Your task to perform on an android device: Go to Google maps Image 0: 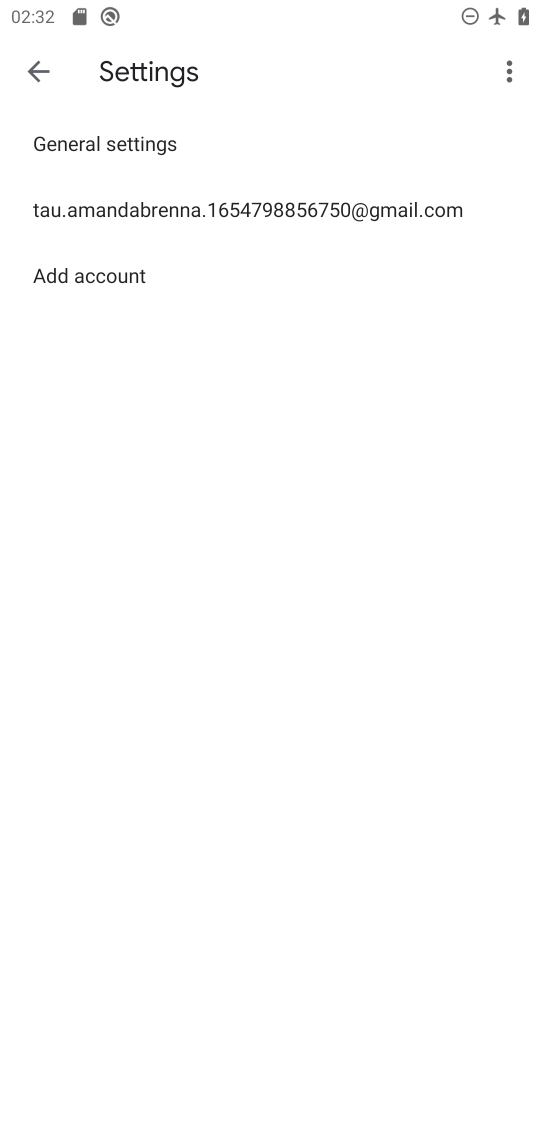
Step 0: press home button
Your task to perform on an android device: Go to Google maps Image 1: 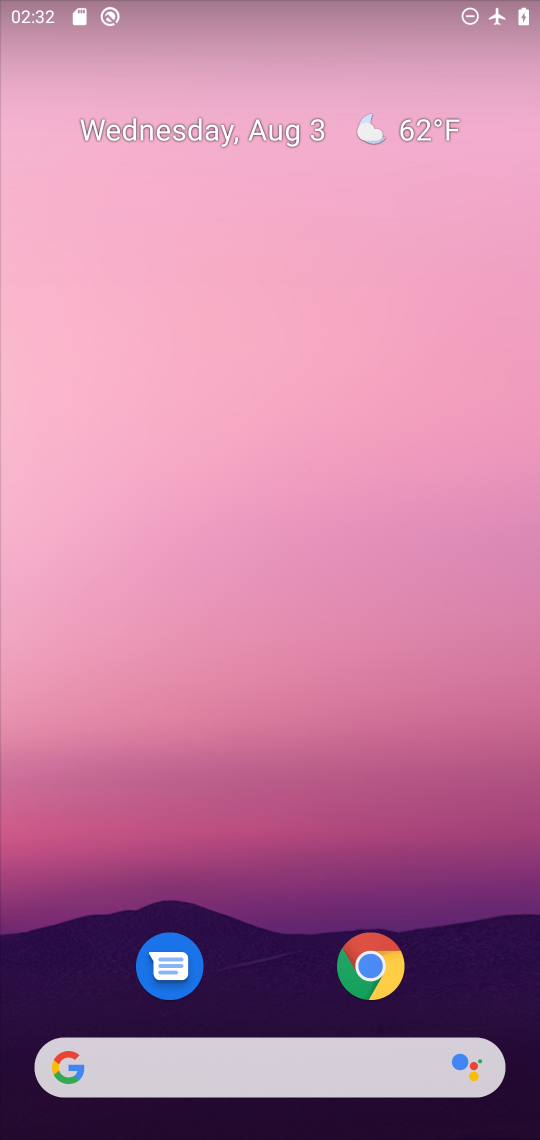
Step 1: drag from (263, 981) to (284, 330)
Your task to perform on an android device: Go to Google maps Image 2: 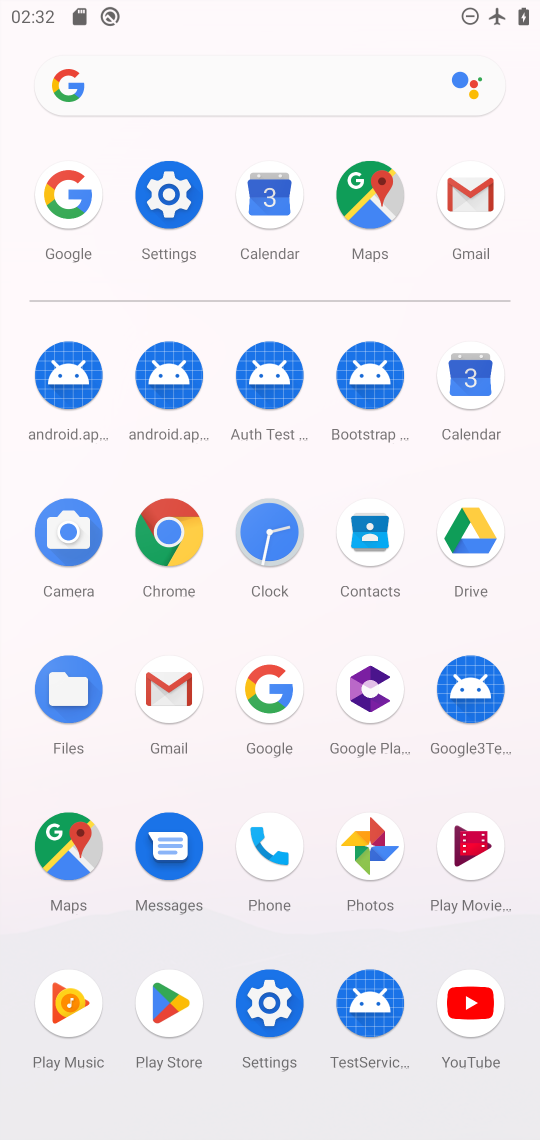
Step 2: click (390, 224)
Your task to perform on an android device: Go to Google maps Image 3: 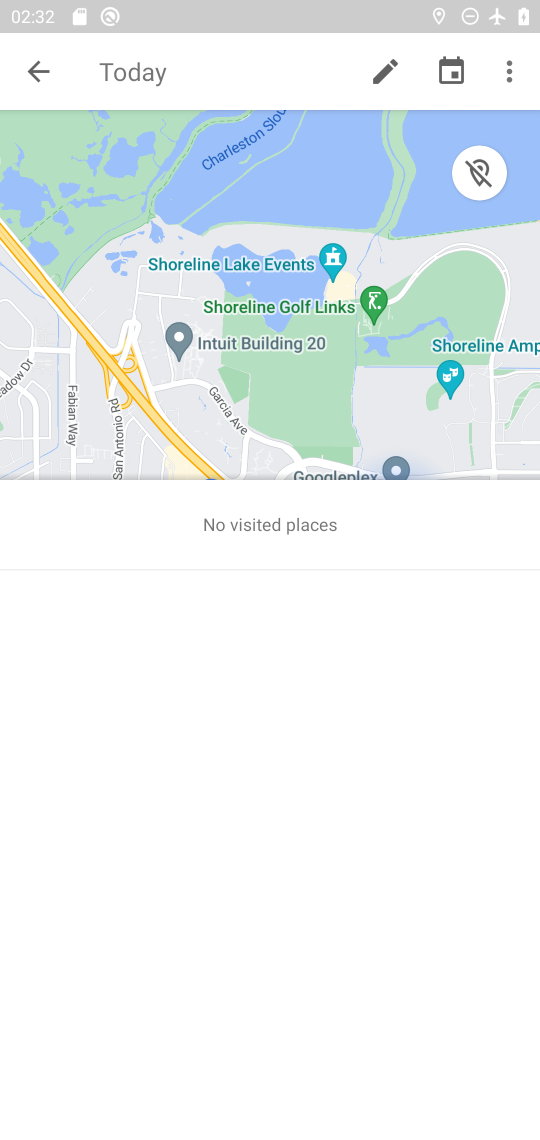
Step 3: task complete